Your task to perform on an android device: What's the weather going to be tomorrow? Image 0: 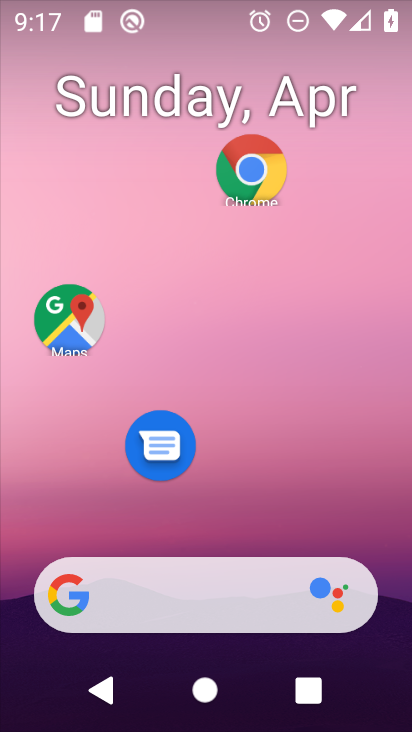
Step 0: drag from (231, 503) to (196, 1)
Your task to perform on an android device: What's the weather going to be tomorrow? Image 1: 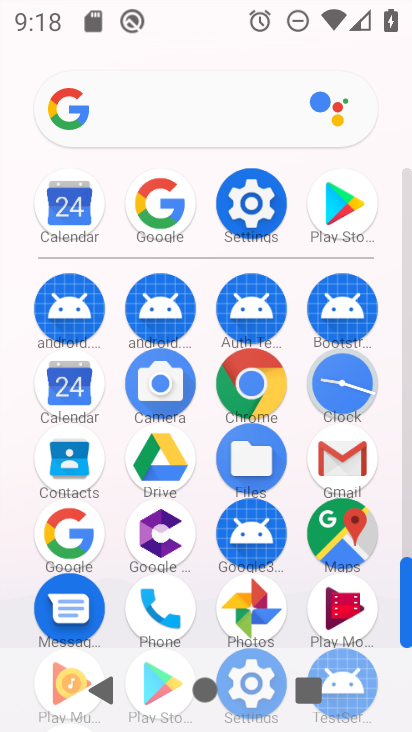
Step 1: click (164, 204)
Your task to perform on an android device: What's the weather going to be tomorrow? Image 2: 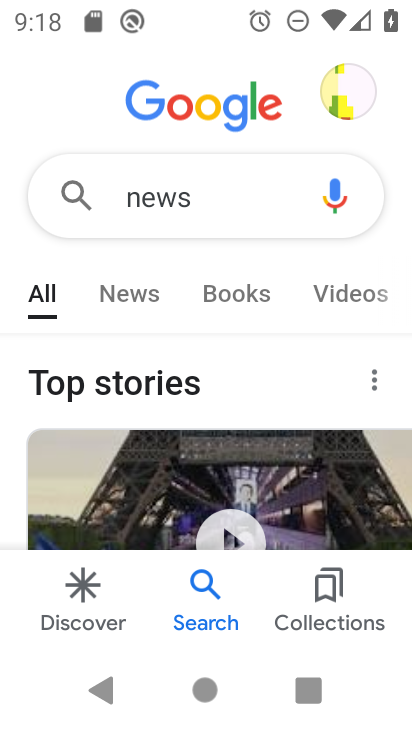
Step 2: click (224, 203)
Your task to perform on an android device: What's the weather going to be tomorrow? Image 3: 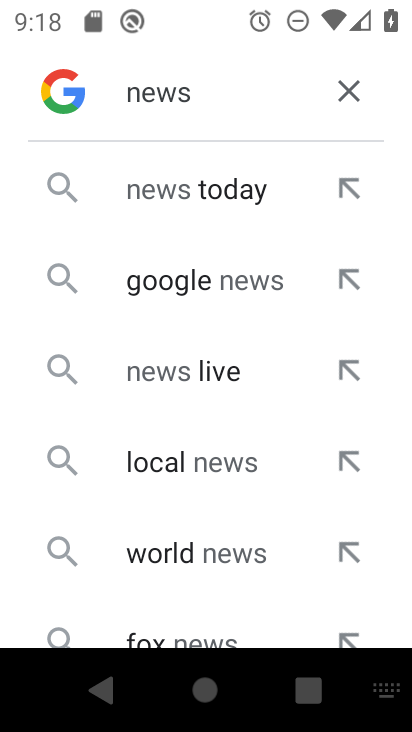
Step 3: click (349, 91)
Your task to perform on an android device: What's the weather going to be tomorrow? Image 4: 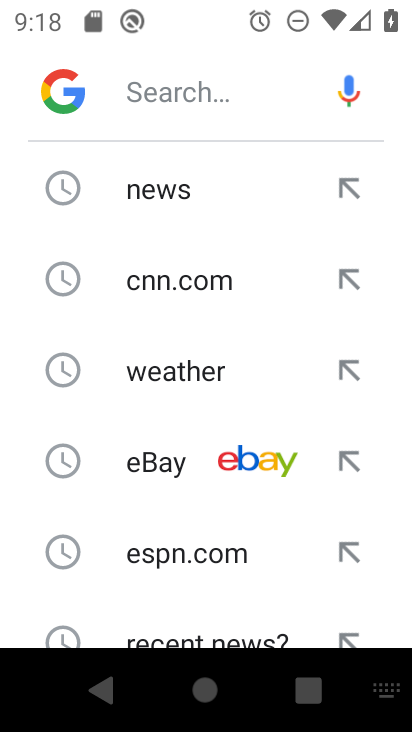
Step 4: drag from (240, 499) to (269, 382)
Your task to perform on an android device: What's the weather going to be tomorrow? Image 5: 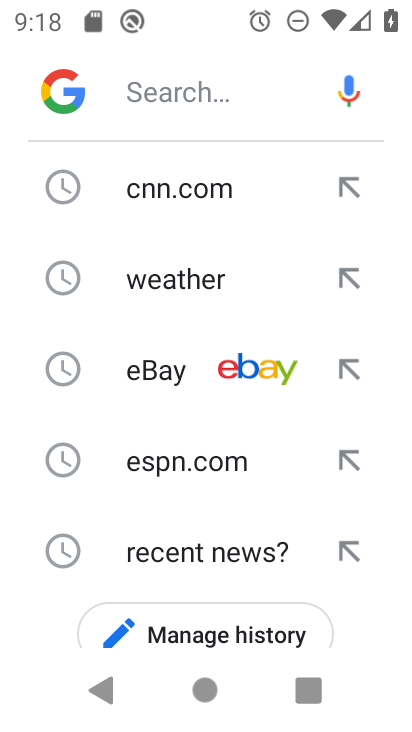
Step 5: type "weather going to be tomorrow"
Your task to perform on an android device: What's the weather going to be tomorrow? Image 6: 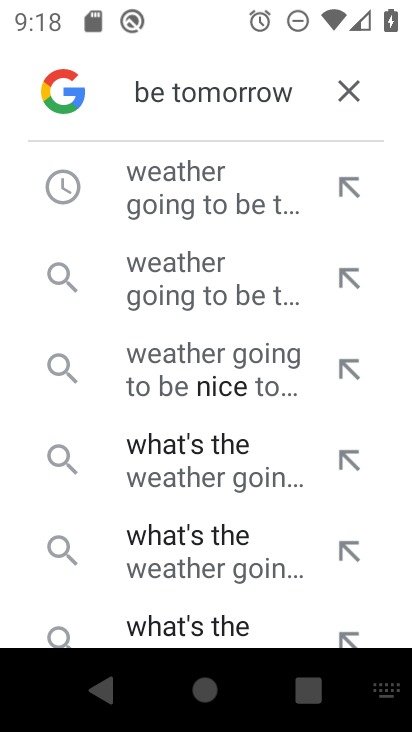
Step 6: click (218, 176)
Your task to perform on an android device: What's the weather going to be tomorrow? Image 7: 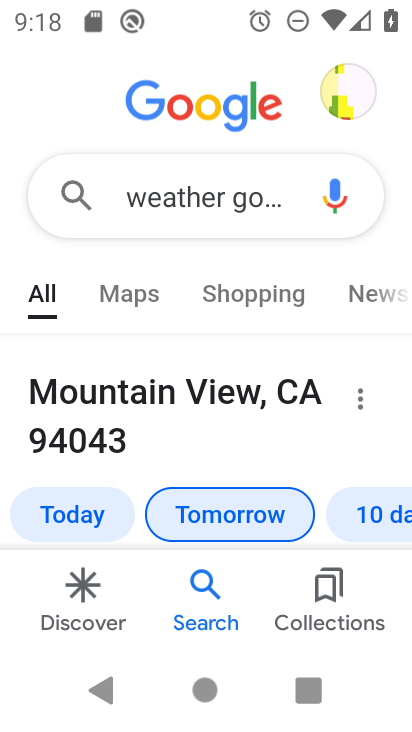
Step 7: task complete